Your task to perform on an android device: turn notification dots on Image 0: 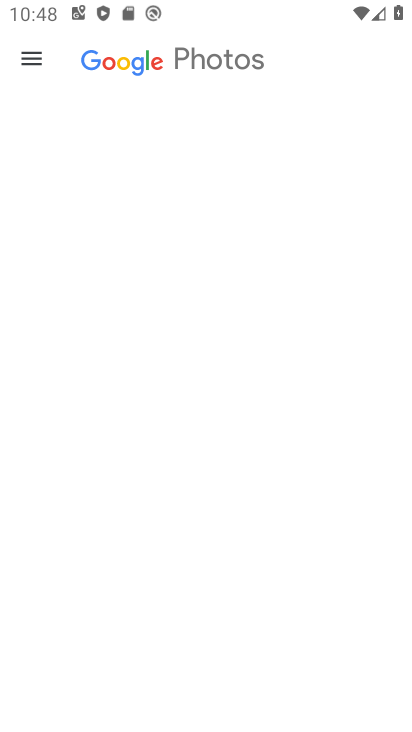
Step 0: drag from (180, 614) to (184, 136)
Your task to perform on an android device: turn notification dots on Image 1: 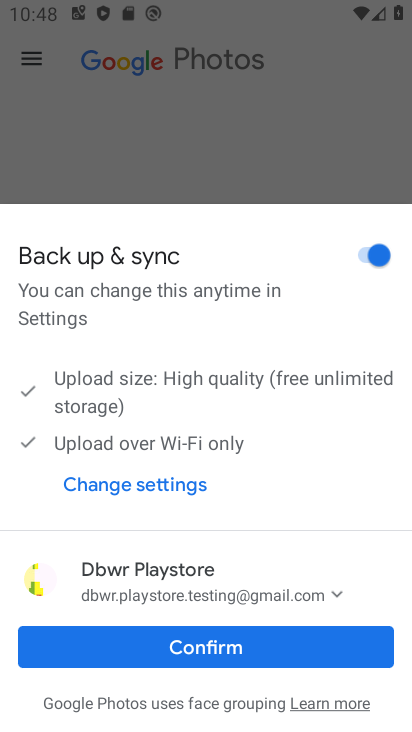
Step 1: press home button
Your task to perform on an android device: turn notification dots on Image 2: 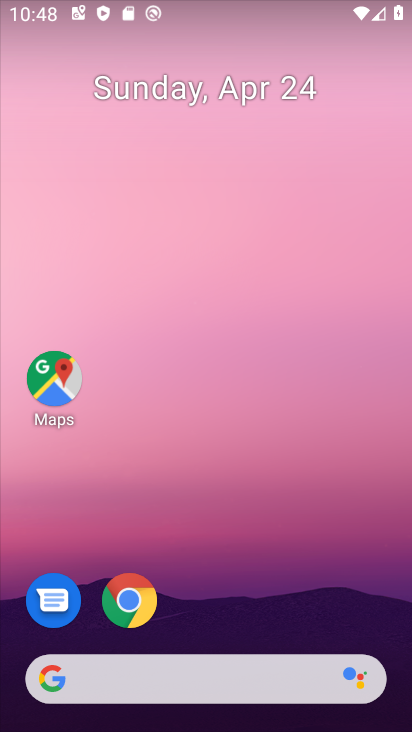
Step 2: drag from (250, 620) to (231, 17)
Your task to perform on an android device: turn notification dots on Image 3: 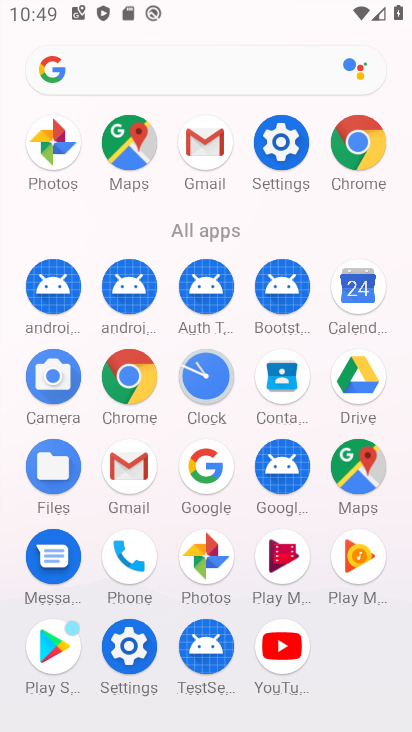
Step 3: click (281, 165)
Your task to perform on an android device: turn notification dots on Image 4: 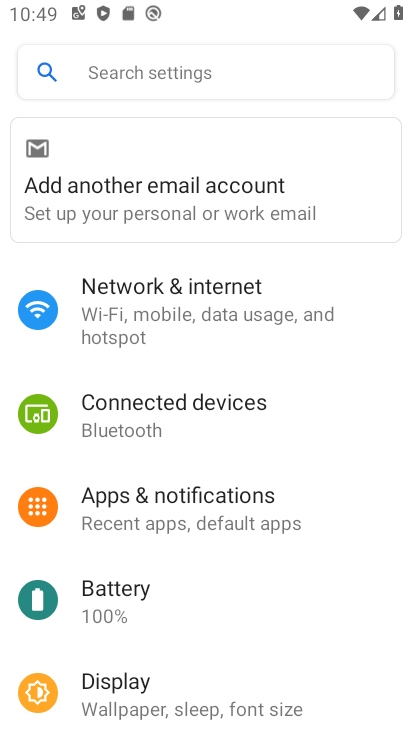
Step 4: click (193, 481)
Your task to perform on an android device: turn notification dots on Image 5: 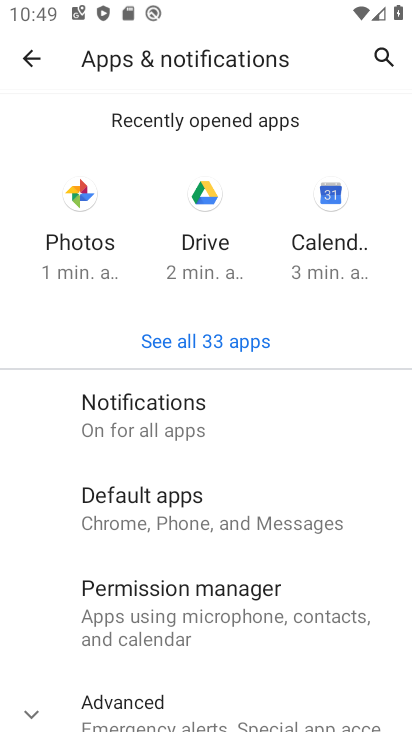
Step 5: click (179, 413)
Your task to perform on an android device: turn notification dots on Image 6: 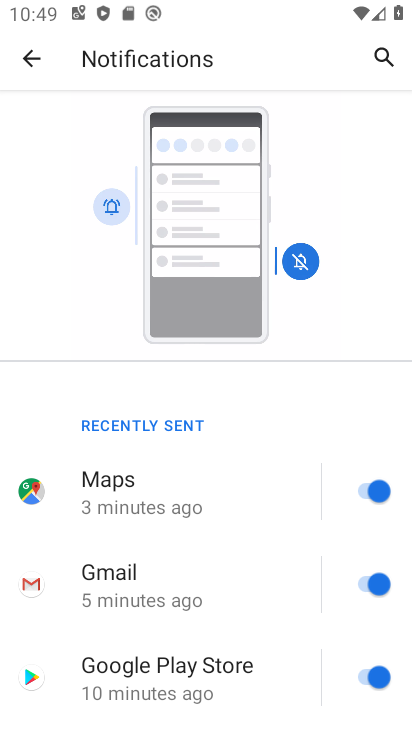
Step 6: drag from (124, 645) to (229, 136)
Your task to perform on an android device: turn notification dots on Image 7: 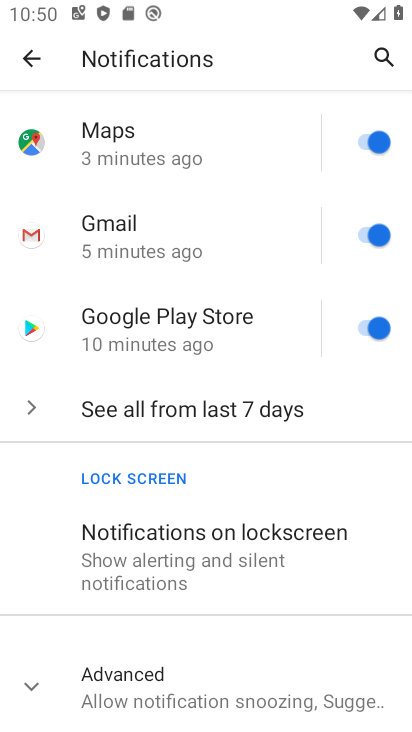
Step 7: click (215, 555)
Your task to perform on an android device: turn notification dots on Image 8: 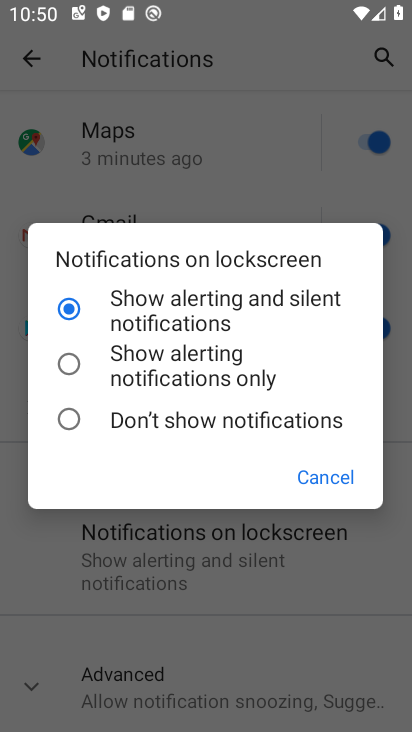
Step 8: task complete